Your task to perform on an android device: Clear all items from cart on newegg.com. Search for logitech g pro on newegg.com, select the first entry, and add it to the cart. Image 0: 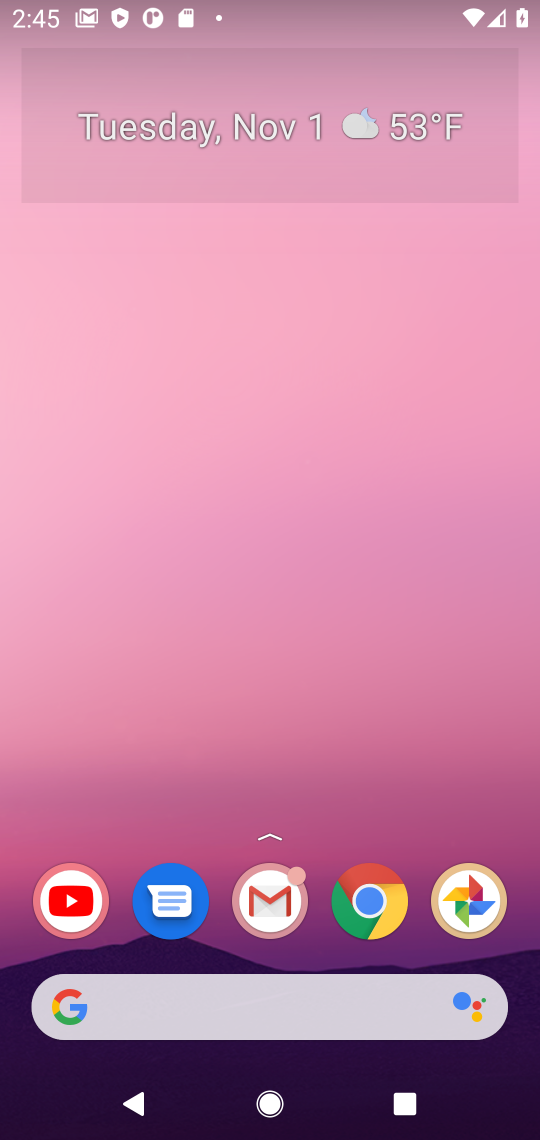
Step 0: click (381, 897)
Your task to perform on an android device: Clear all items from cart on newegg.com. Search for logitech g pro on newegg.com, select the first entry, and add it to the cart. Image 1: 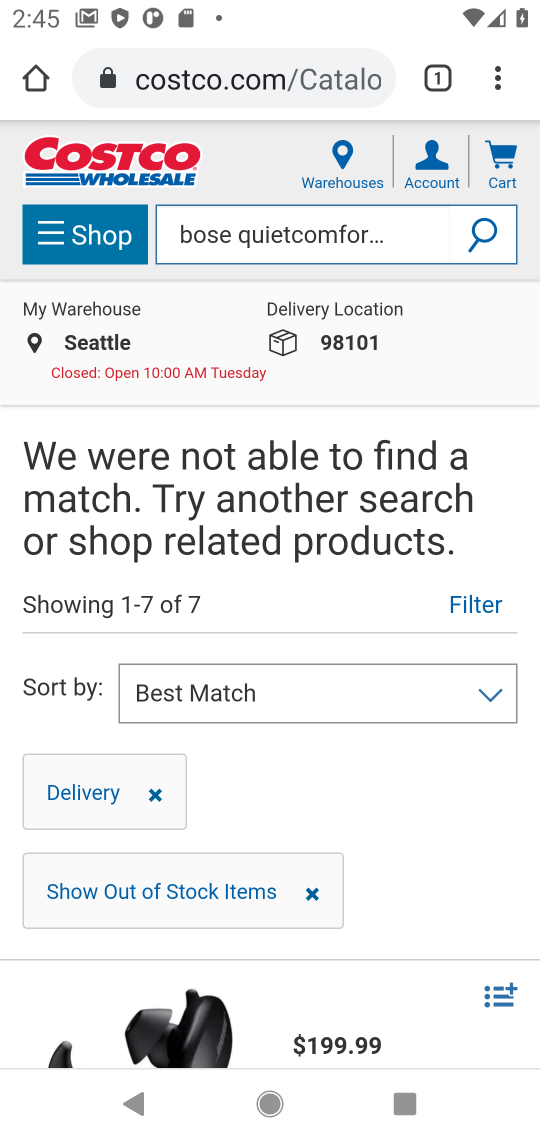
Step 1: click (235, 83)
Your task to perform on an android device: Clear all items from cart on newegg.com. Search for logitech g pro on newegg.com, select the first entry, and add it to the cart. Image 2: 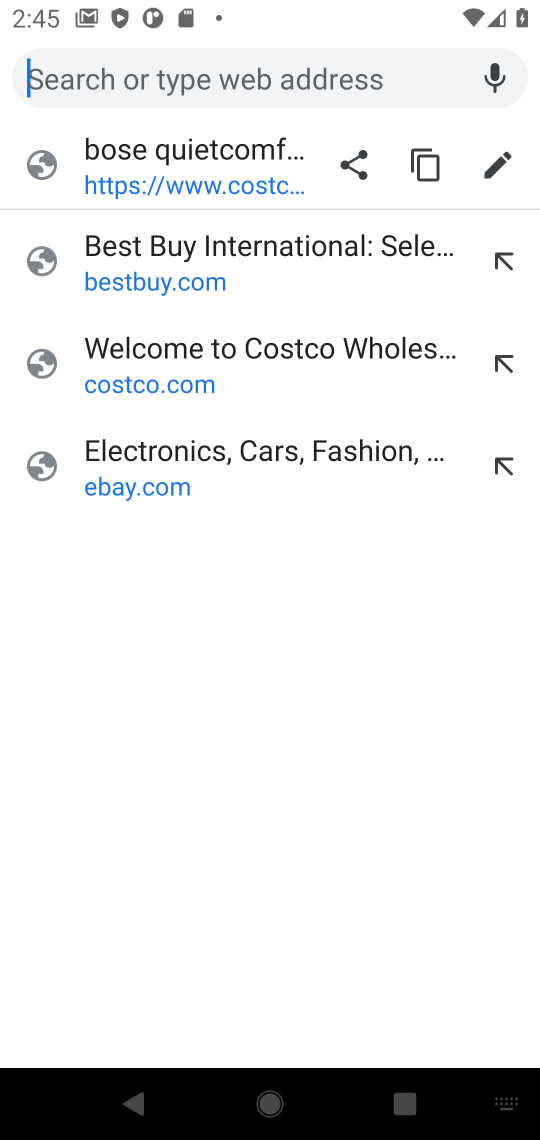
Step 2: type "newegg.com\"
Your task to perform on an android device: Clear all items from cart on newegg.com. Search for logitech g pro on newegg.com, select the first entry, and add it to the cart. Image 3: 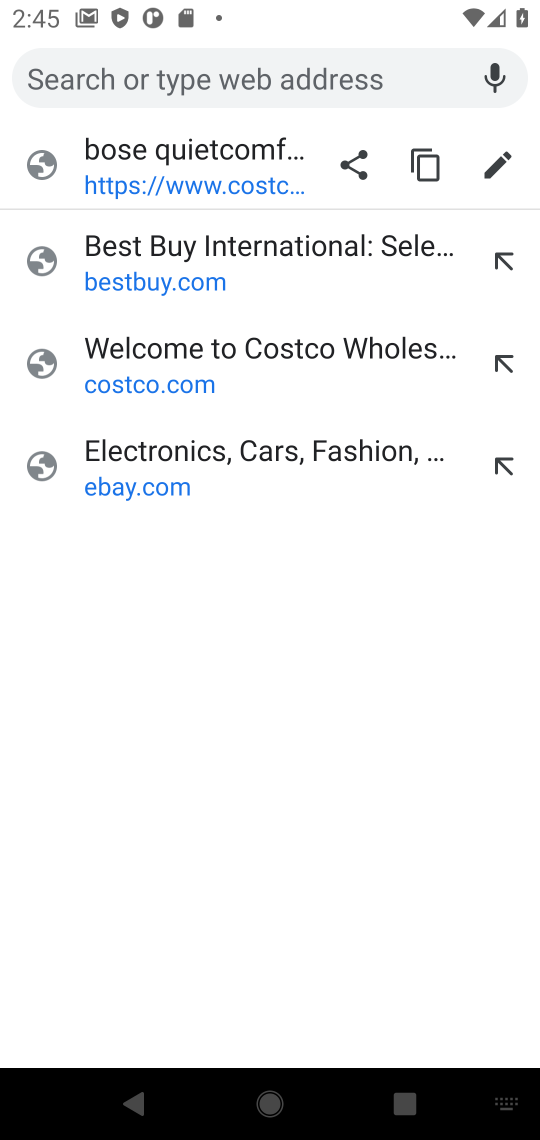
Step 3: type "newegg.com"
Your task to perform on an android device: Clear all items from cart on newegg.com. Search for logitech g pro on newegg.com, select the first entry, and add it to the cart. Image 4: 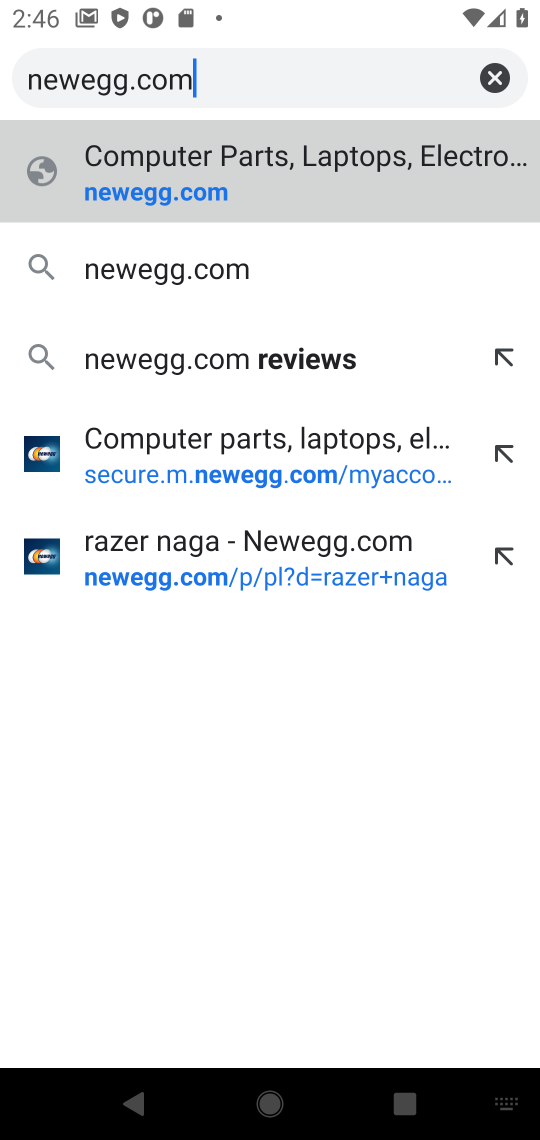
Step 4: click (282, 196)
Your task to perform on an android device: Clear all items from cart on newegg.com. Search for logitech g pro on newegg.com, select the first entry, and add it to the cart. Image 5: 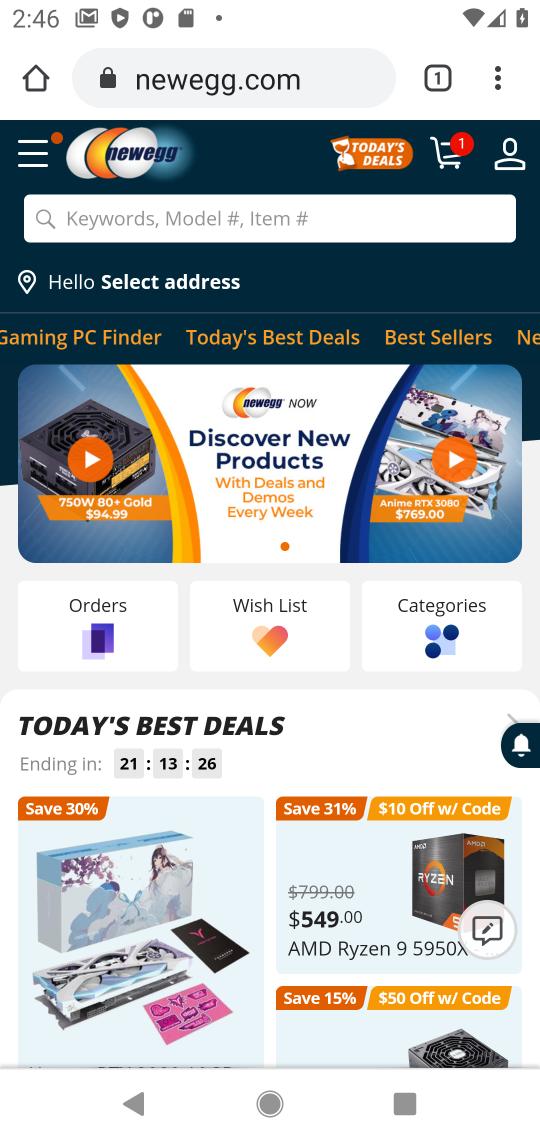
Step 5: click (458, 154)
Your task to perform on an android device: Clear all items from cart on newegg.com. Search for logitech g pro on newegg.com, select the first entry, and add it to the cart. Image 6: 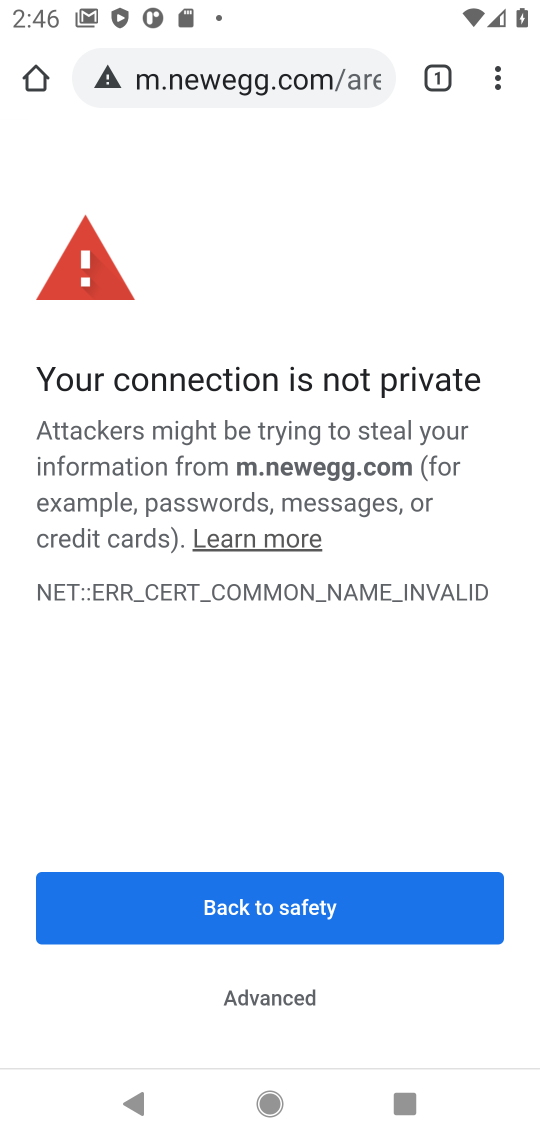
Step 6: click (289, 1003)
Your task to perform on an android device: Clear all items from cart on newegg.com. Search for logitech g pro on newegg.com, select the first entry, and add it to the cart. Image 7: 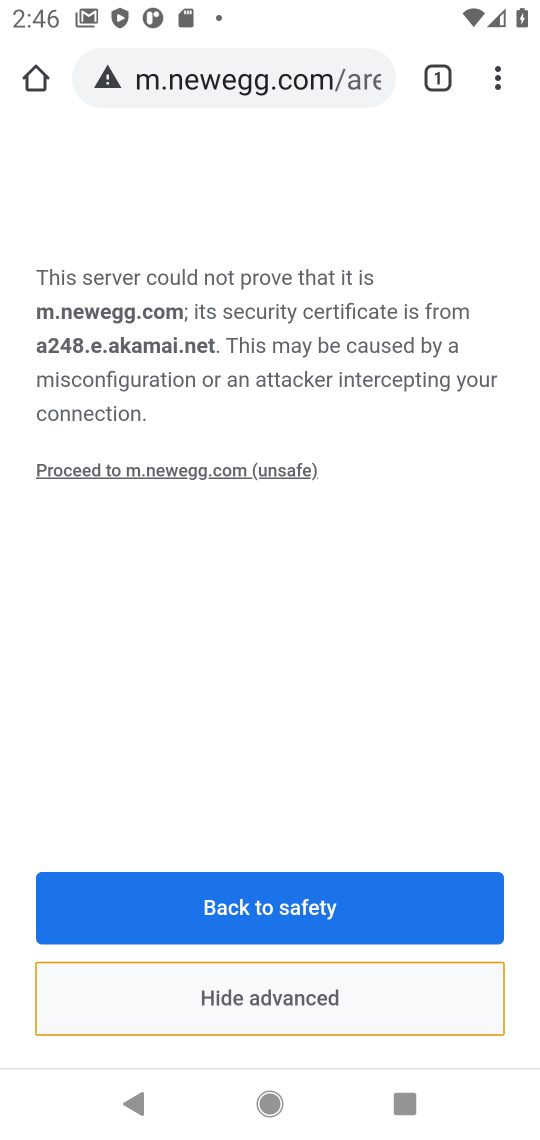
Step 7: click (165, 472)
Your task to perform on an android device: Clear all items from cart on newegg.com. Search for logitech g pro on newegg.com, select the first entry, and add it to the cart. Image 8: 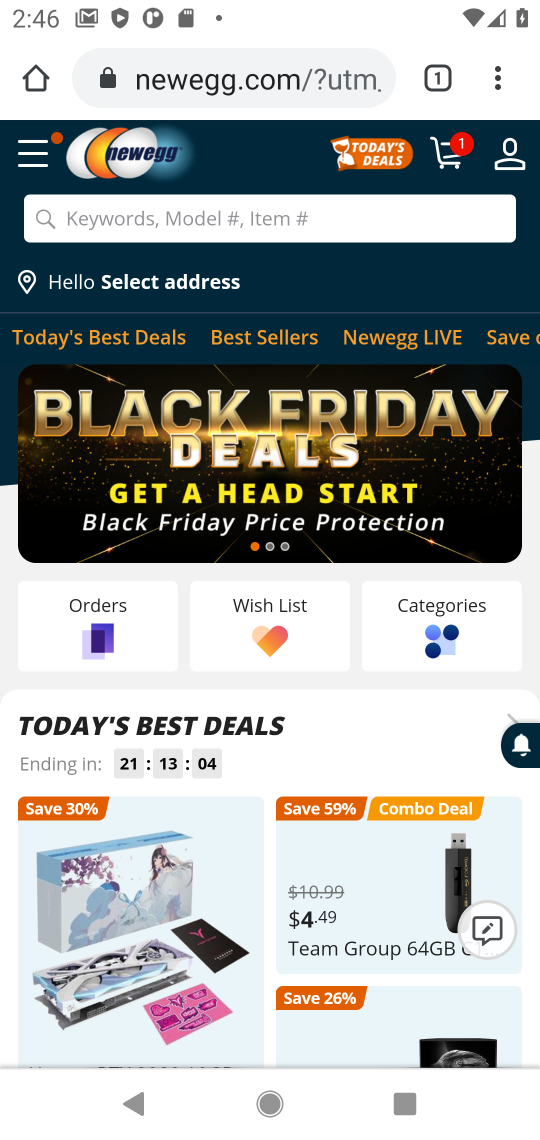
Step 8: click (458, 153)
Your task to perform on an android device: Clear all items from cart on newegg.com. Search for logitech g pro on newegg.com, select the first entry, and add it to the cart. Image 9: 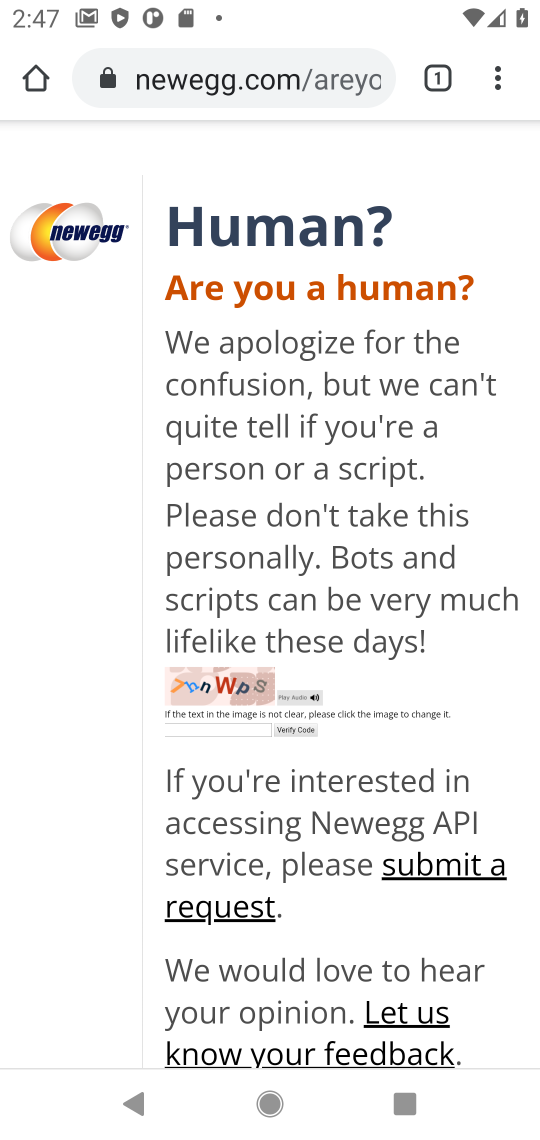
Step 9: click (209, 727)
Your task to perform on an android device: Clear all items from cart on newegg.com. Search for logitech g pro on newegg.com, select the first entry, and add it to the cart. Image 10: 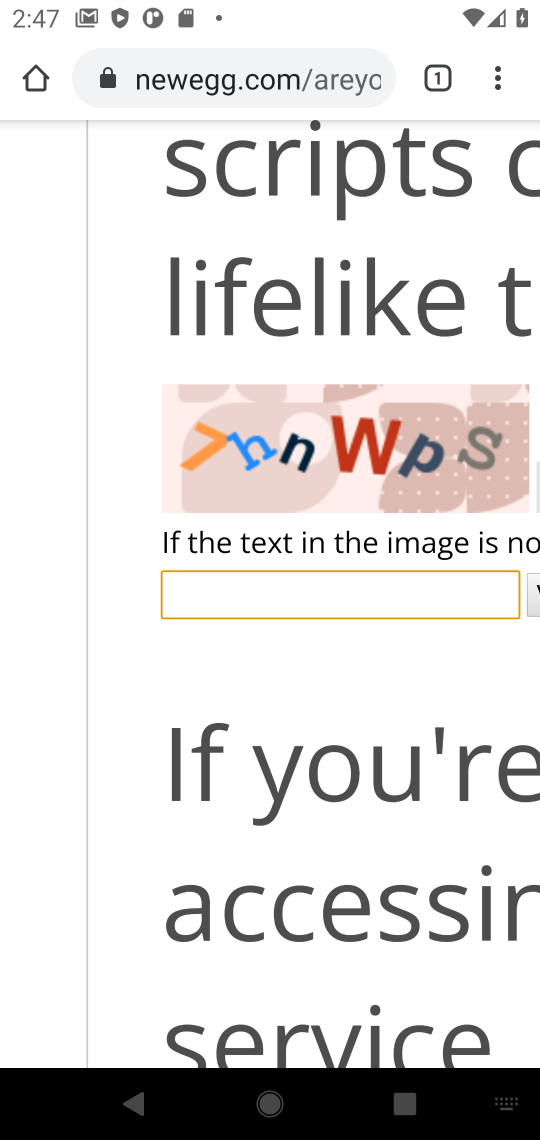
Step 10: type "7hnWpS"
Your task to perform on an android device: Clear all items from cart on newegg.com. Search for logitech g pro on newegg.com, select the first entry, and add it to the cart. Image 11: 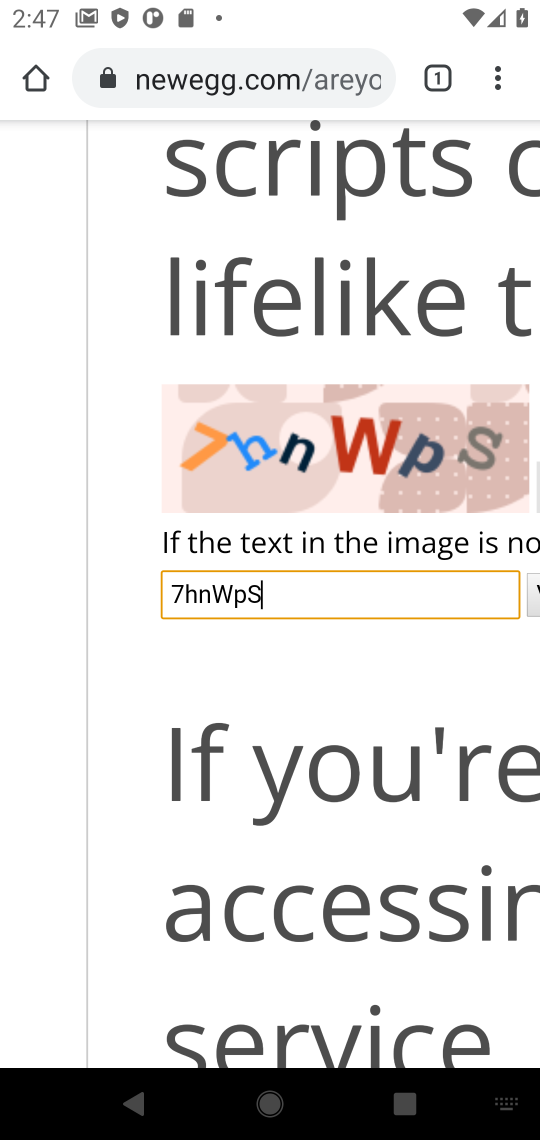
Step 11: click (535, 602)
Your task to perform on an android device: Clear all items from cart on newegg.com. Search for logitech g pro on newegg.com, select the first entry, and add it to the cart. Image 12: 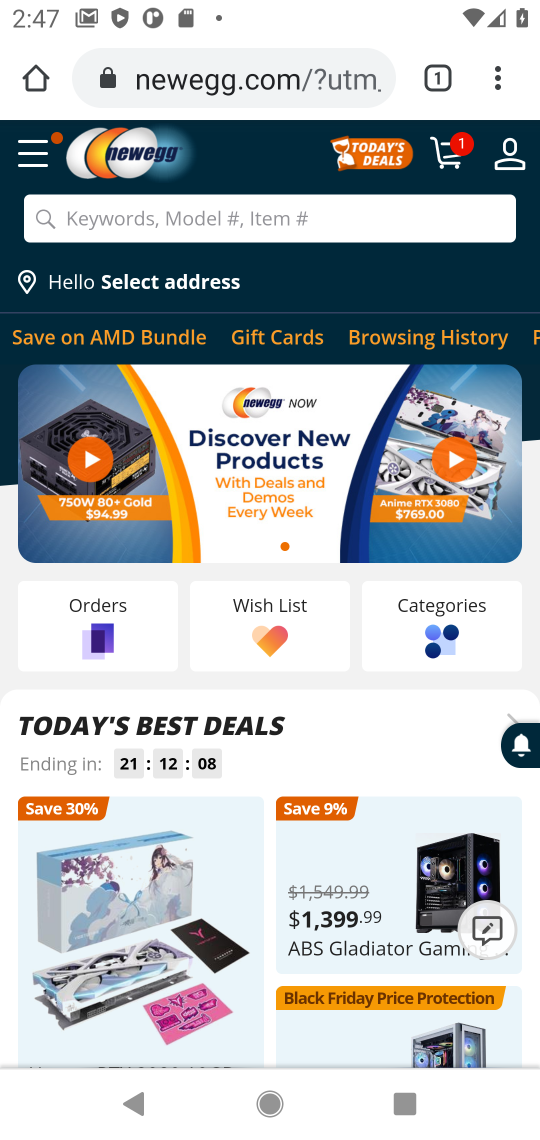
Step 12: click (457, 147)
Your task to perform on an android device: Clear all items from cart on newegg.com. Search for logitech g pro on newegg.com, select the first entry, and add it to the cart. Image 13: 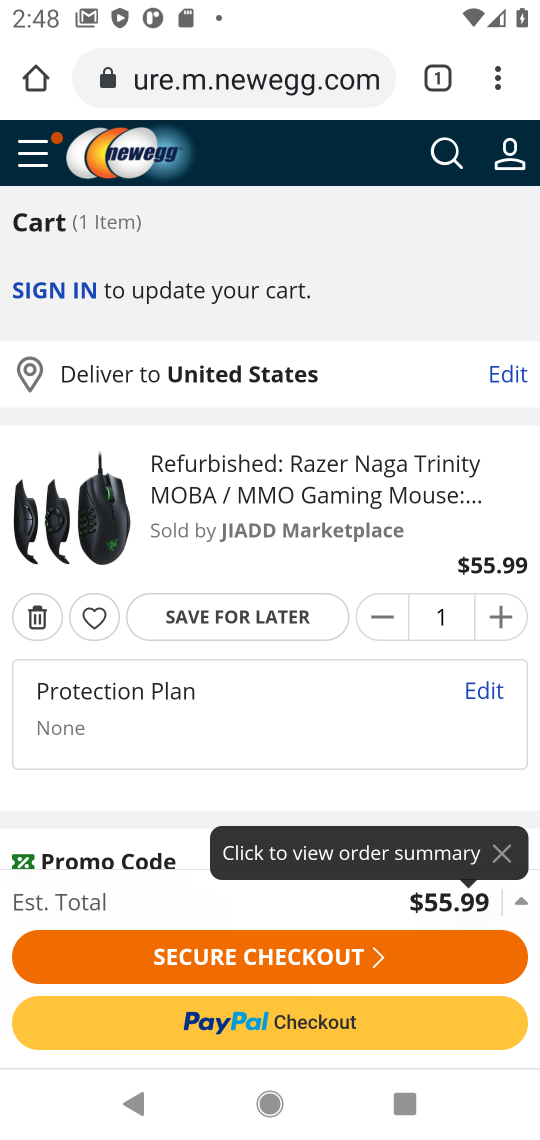
Step 13: click (375, 619)
Your task to perform on an android device: Clear all items from cart on newegg.com. Search for logitech g pro on newegg.com, select the first entry, and add it to the cart. Image 14: 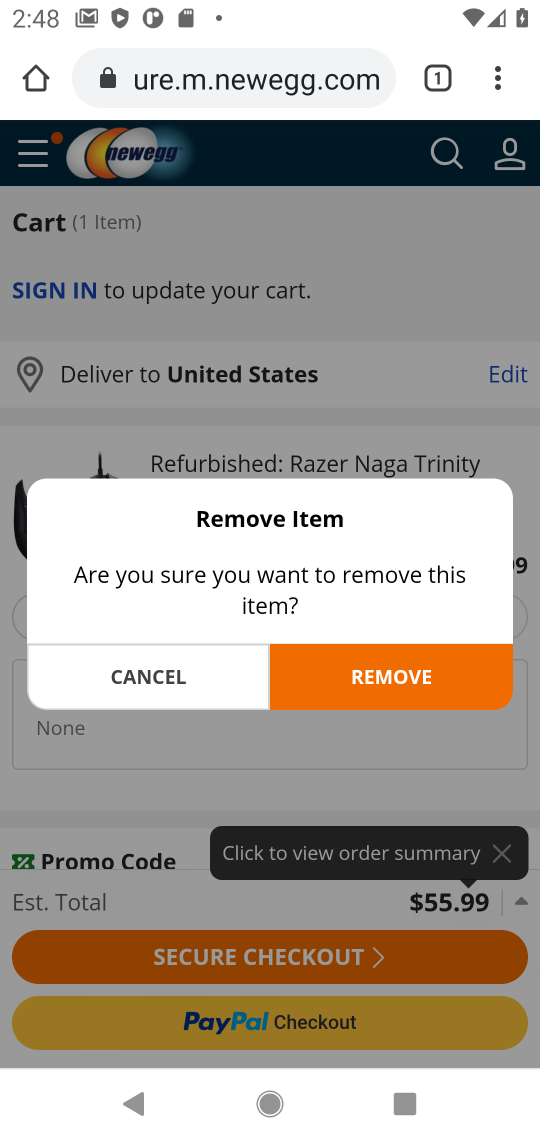
Step 14: click (391, 668)
Your task to perform on an android device: Clear all items from cart on newegg.com. Search for logitech g pro on newegg.com, select the first entry, and add it to the cart. Image 15: 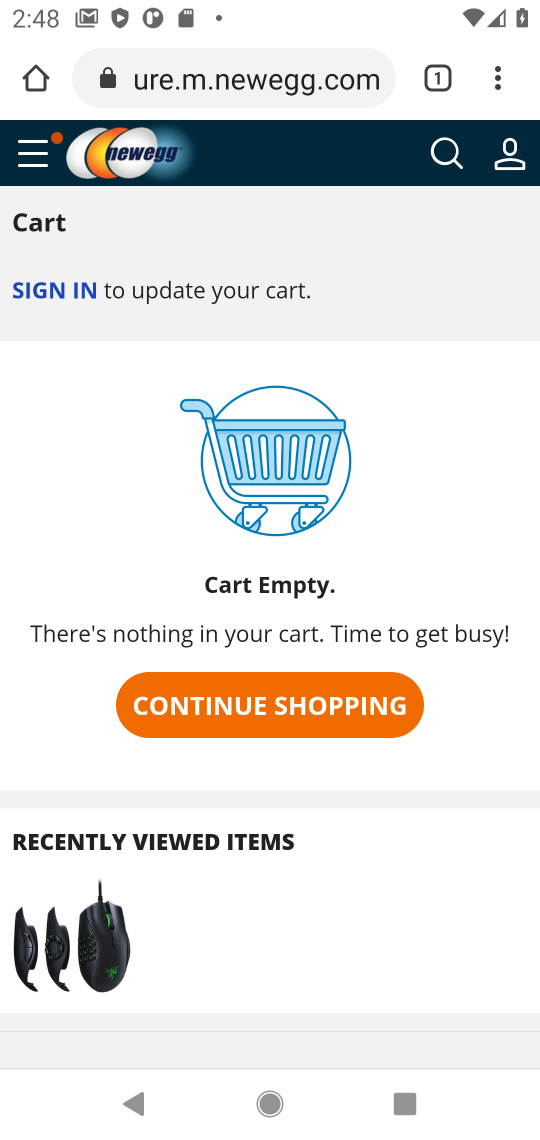
Step 15: click (276, 699)
Your task to perform on an android device: Clear all items from cart on newegg.com. Search for logitech g pro on newegg.com, select the first entry, and add it to the cart. Image 16: 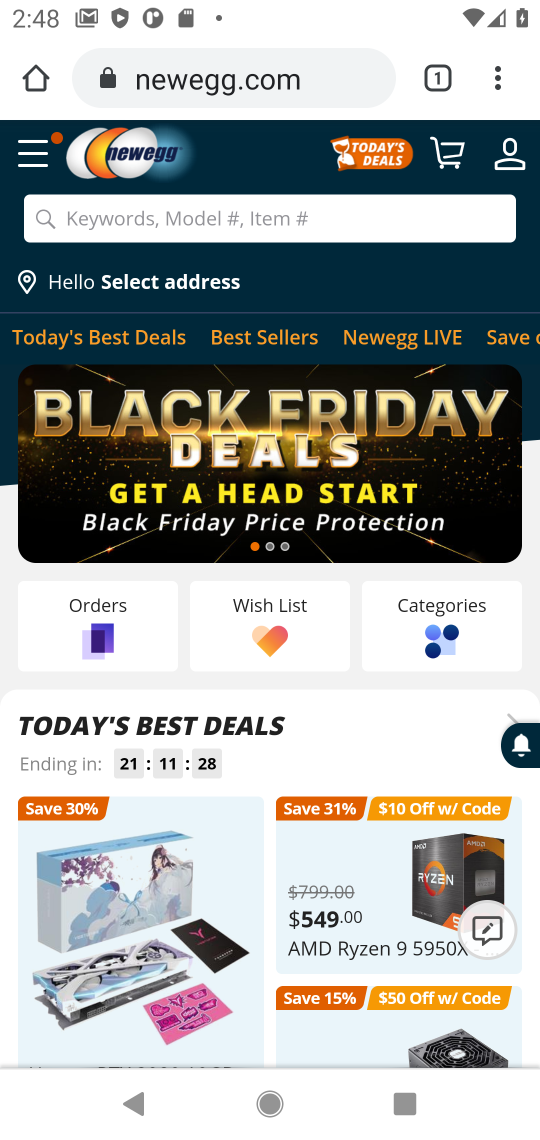
Step 16: click (286, 225)
Your task to perform on an android device: Clear all items from cart on newegg.com. Search for logitech g pro on newegg.com, select the first entry, and add it to the cart. Image 17: 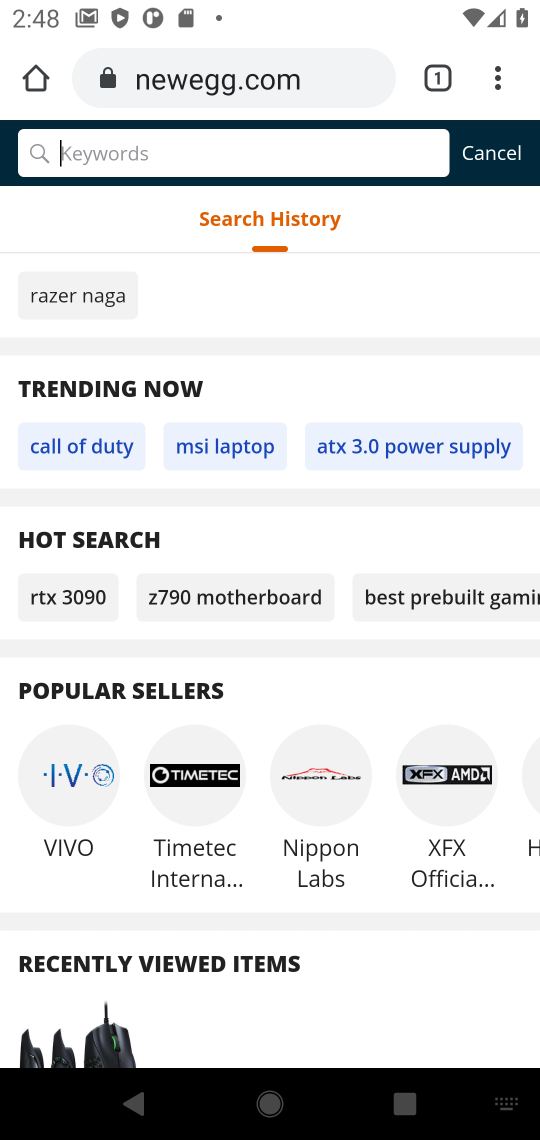
Step 17: type "logitech g pro"
Your task to perform on an android device: Clear all items from cart on newegg.com. Search for logitech g pro on newegg.com, select the first entry, and add it to the cart. Image 18: 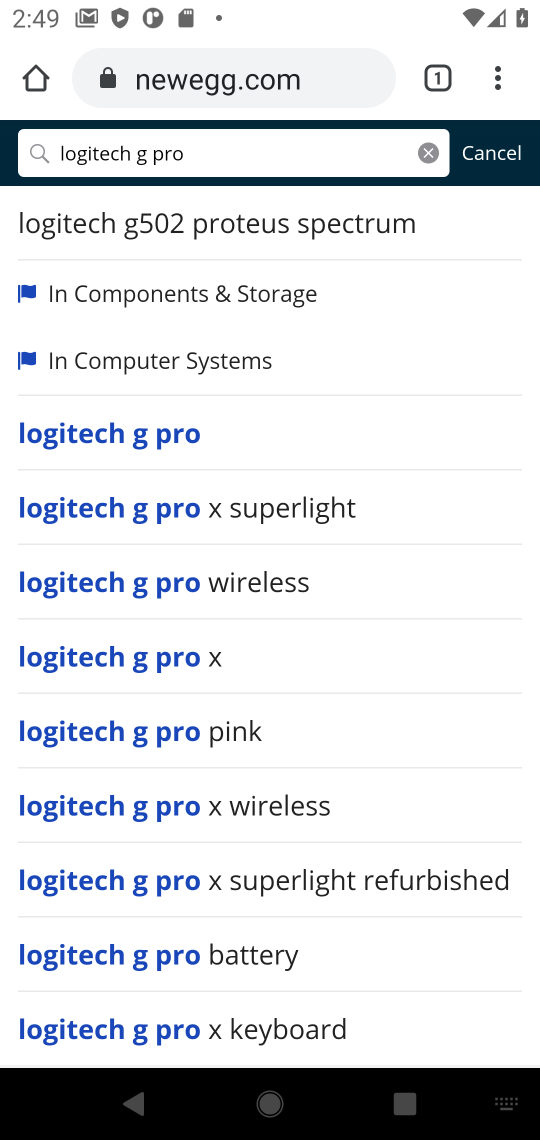
Step 18: press enter
Your task to perform on an android device: Clear all items from cart on newegg.com. Search for logitech g pro on newegg.com, select the first entry, and add it to the cart. Image 19: 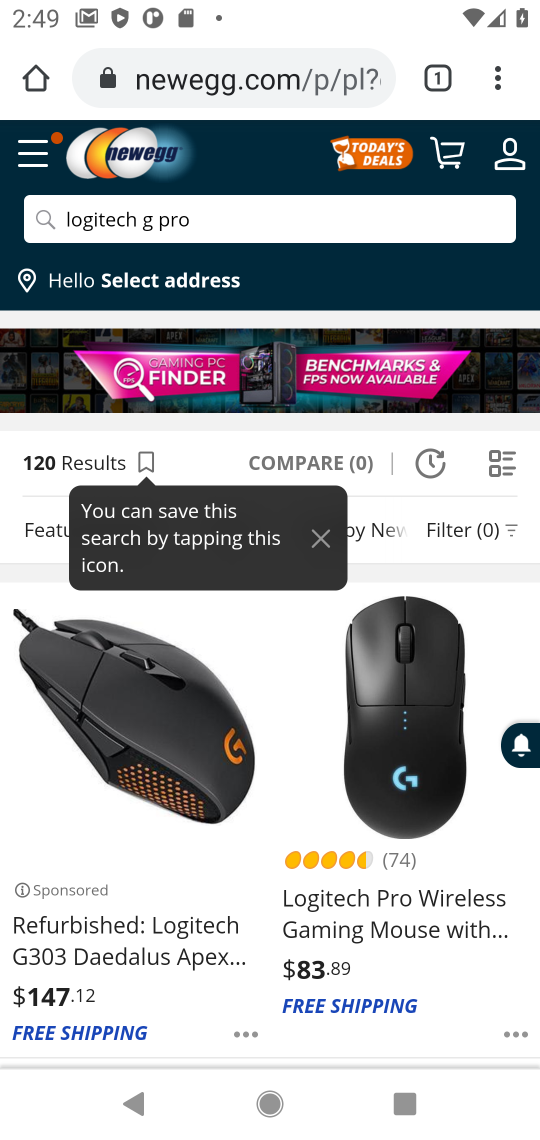
Step 19: click (90, 944)
Your task to perform on an android device: Clear all items from cart on newegg.com. Search for logitech g pro on newegg.com, select the first entry, and add it to the cart. Image 20: 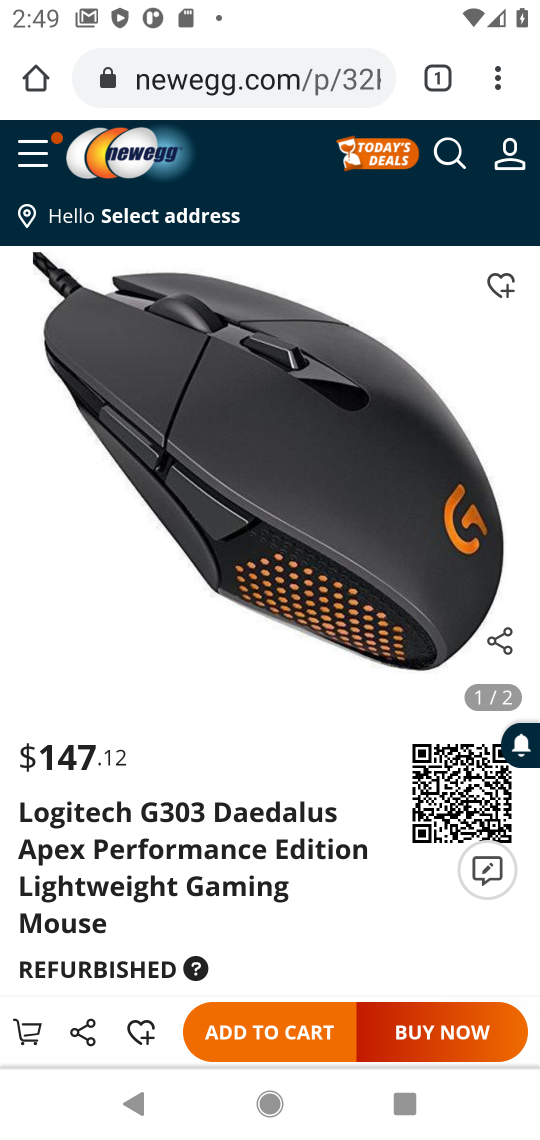
Step 20: click (325, 1027)
Your task to perform on an android device: Clear all items from cart on newegg.com. Search for logitech g pro on newegg.com, select the first entry, and add it to the cart. Image 21: 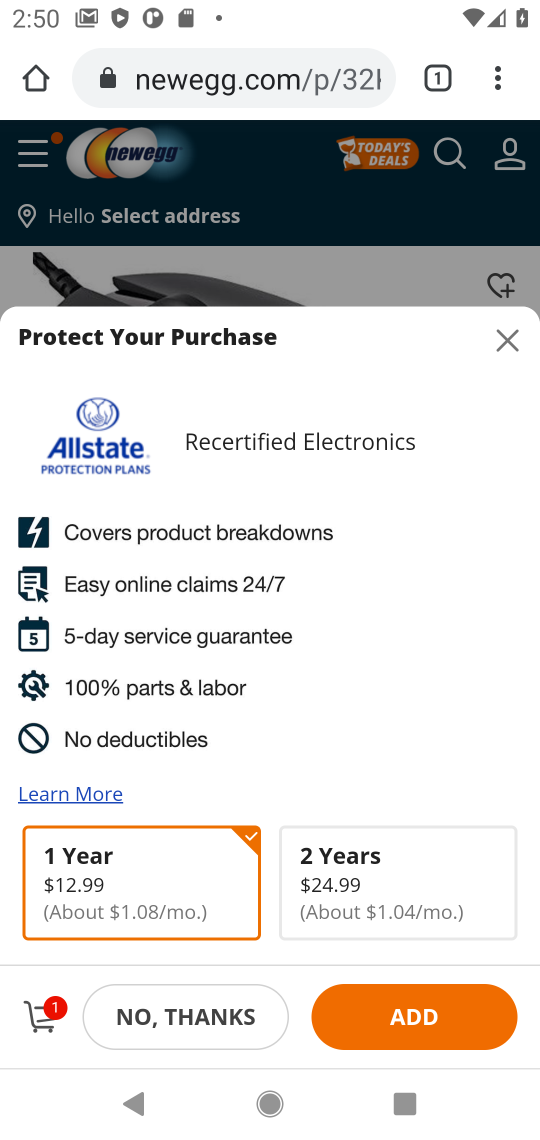
Step 21: task complete